Your task to perform on an android device: Go to Yahoo.com Image 0: 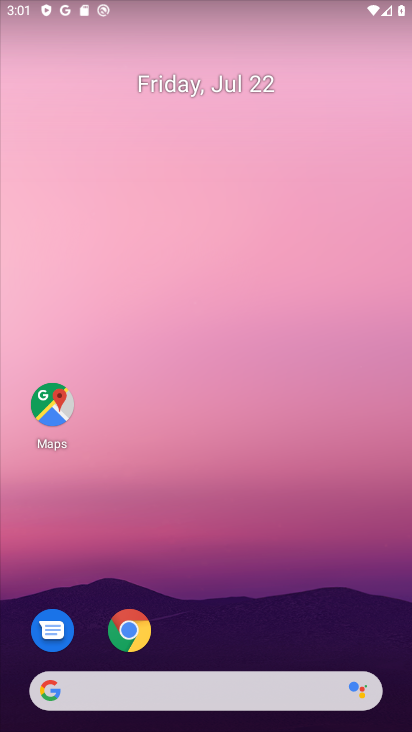
Step 0: click (107, 649)
Your task to perform on an android device: Go to Yahoo.com Image 1: 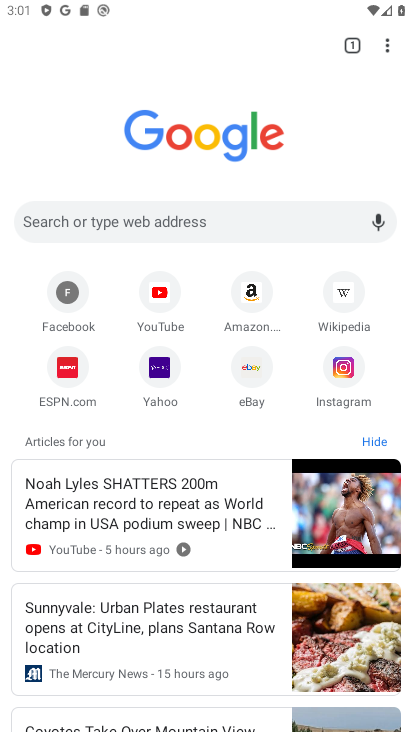
Step 1: click (172, 366)
Your task to perform on an android device: Go to Yahoo.com Image 2: 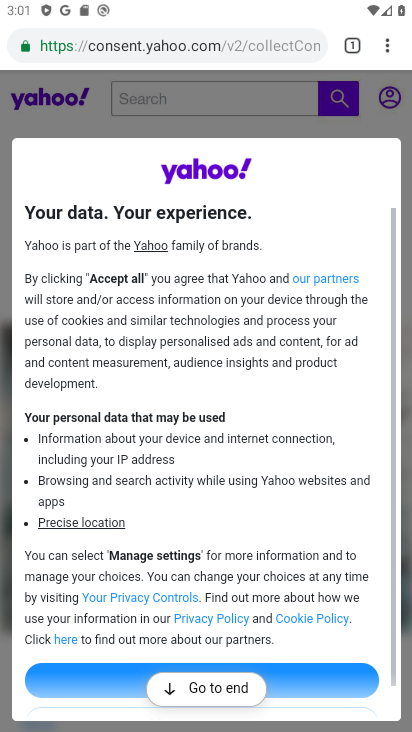
Step 2: task complete